Your task to perform on an android device: turn pop-ups off in chrome Image 0: 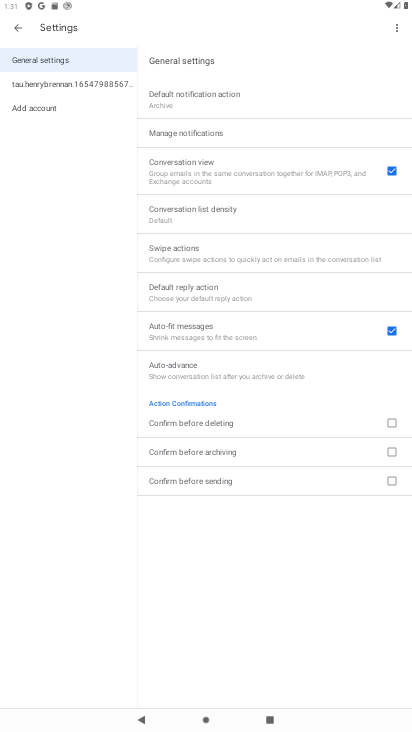
Step 0: press home button
Your task to perform on an android device: turn pop-ups off in chrome Image 1: 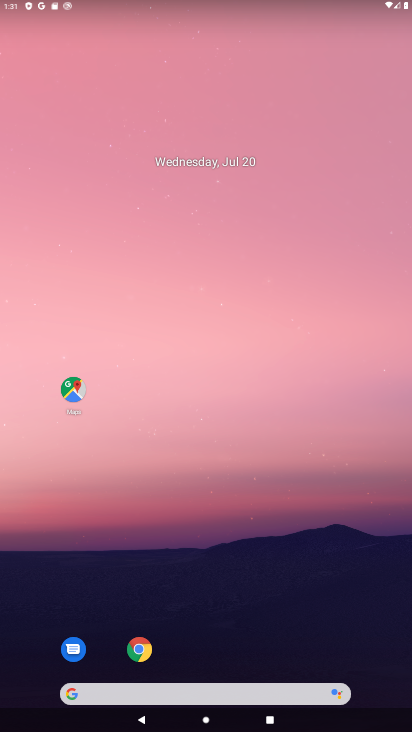
Step 1: click (144, 654)
Your task to perform on an android device: turn pop-ups off in chrome Image 2: 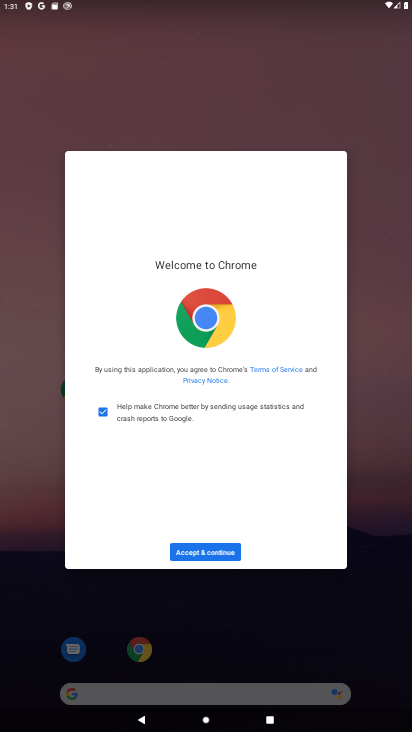
Step 2: click (211, 553)
Your task to perform on an android device: turn pop-ups off in chrome Image 3: 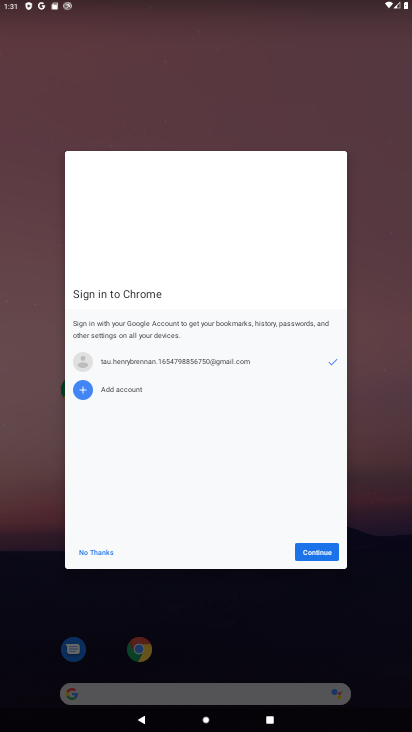
Step 3: click (312, 549)
Your task to perform on an android device: turn pop-ups off in chrome Image 4: 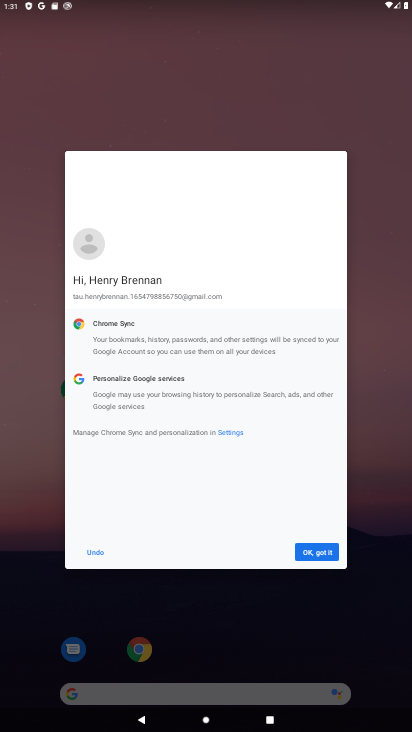
Step 4: click (312, 549)
Your task to perform on an android device: turn pop-ups off in chrome Image 5: 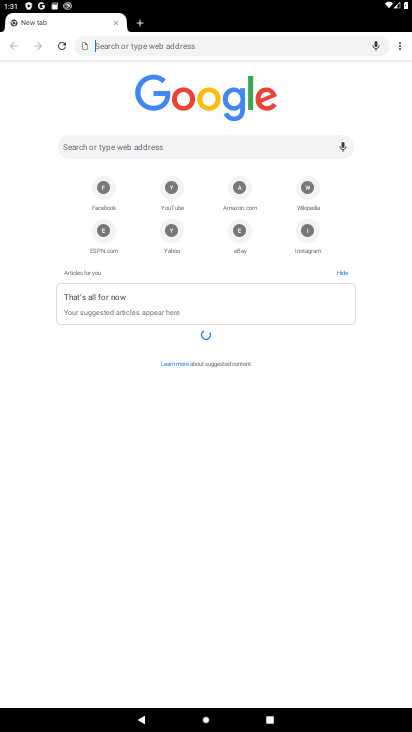
Step 5: click (400, 40)
Your task to perform on an android device: turn pop-ups off in chrome Image 6: 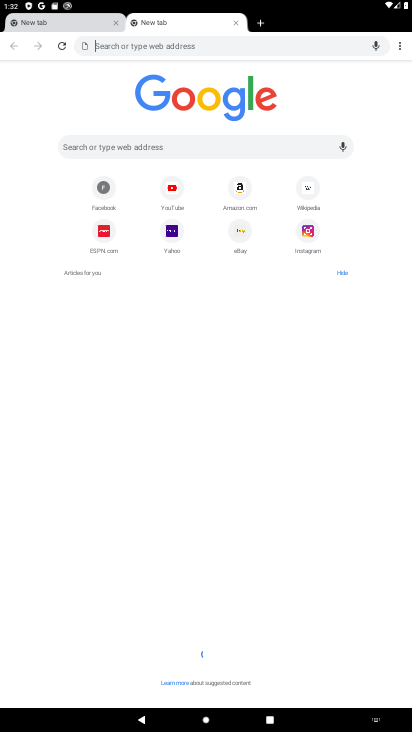
Step 6: click (399, 54)
Your task to perform on an android device: turn pop-ups off in chrome Image 7: 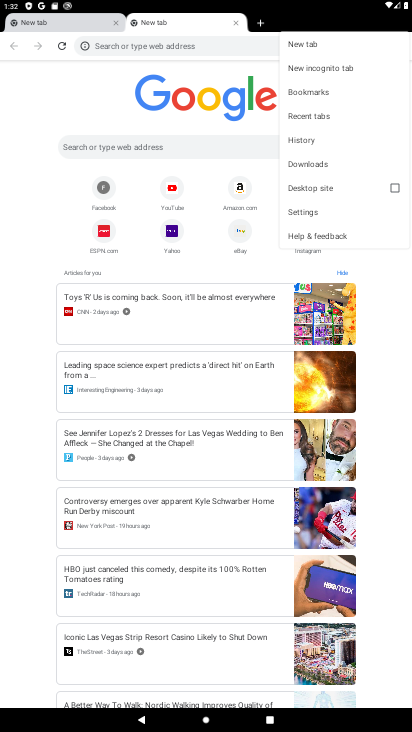
Step 7: click (327, 207)
Your task to perform on an android device: turn pop-ups off in chrome Image 8: 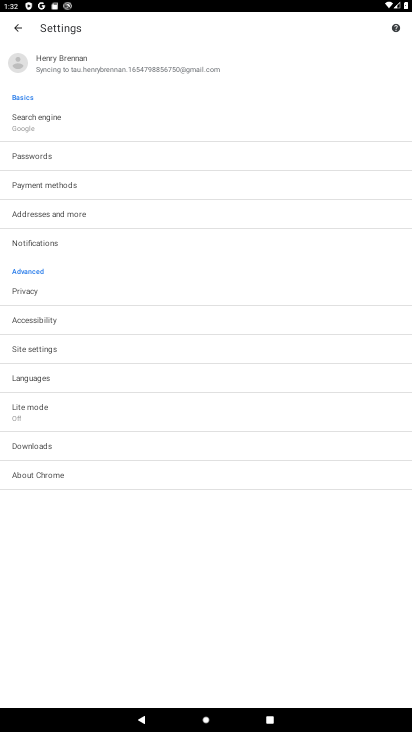
Step 8: click (63, 347)
Your task to perform on an android device: turn pop-ups off in chrome Image 9: 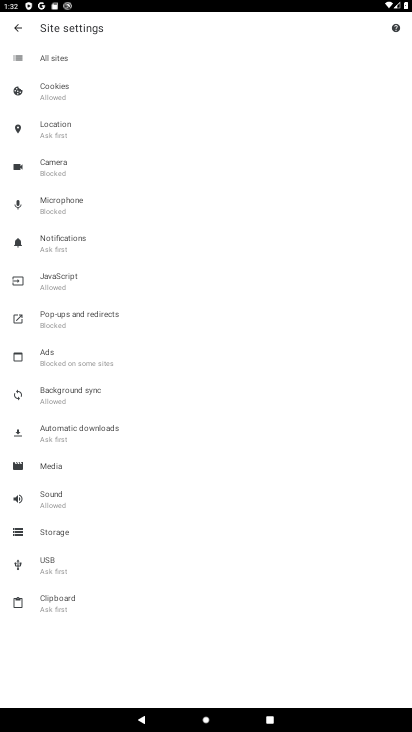
Step 9: click (108, 314)
Your task to perform on an android device: turn pop-ups off in chrome Image 10: 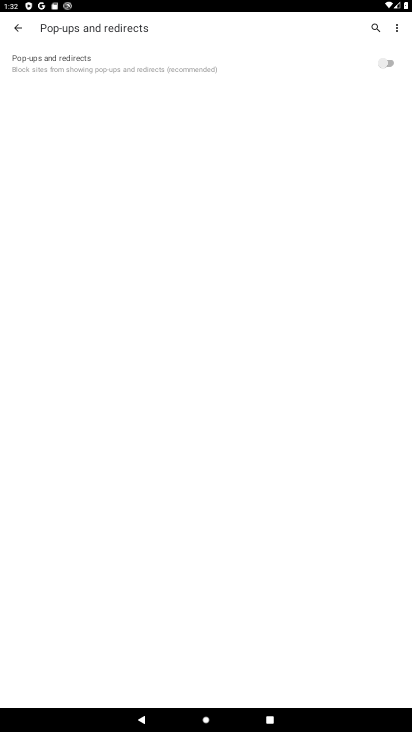
Step 10: task complete